Your task to perform on an android device: change text size in settings app Image 0: 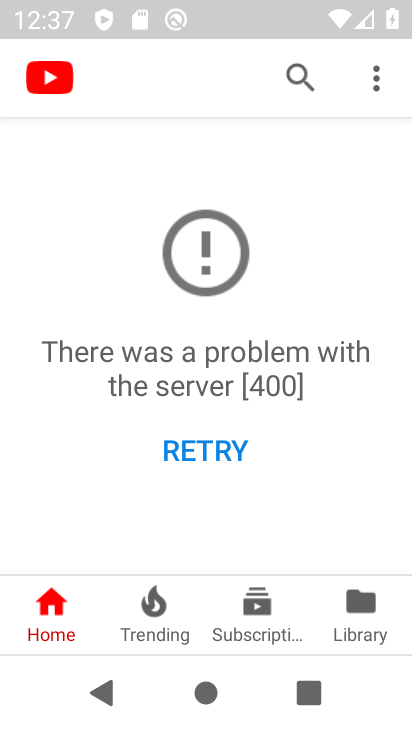
Step 0: task complete